Your task to perform on an android device: toggle javascript in the chrome app Image 0: 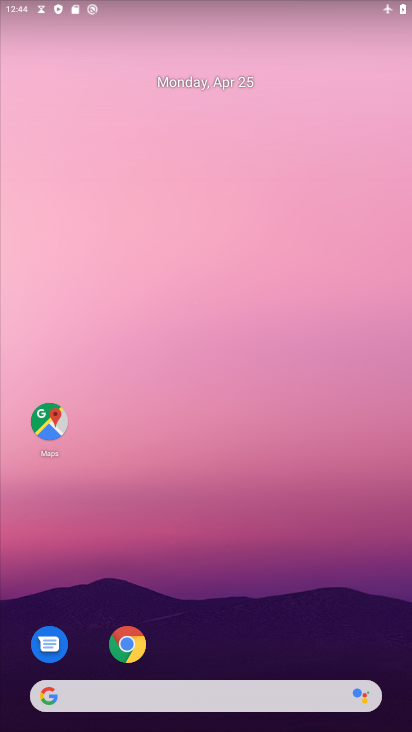
Step 0: click (130, 647)
Your task to perform on an android device: toggle javascript in the chrome app Image 1: 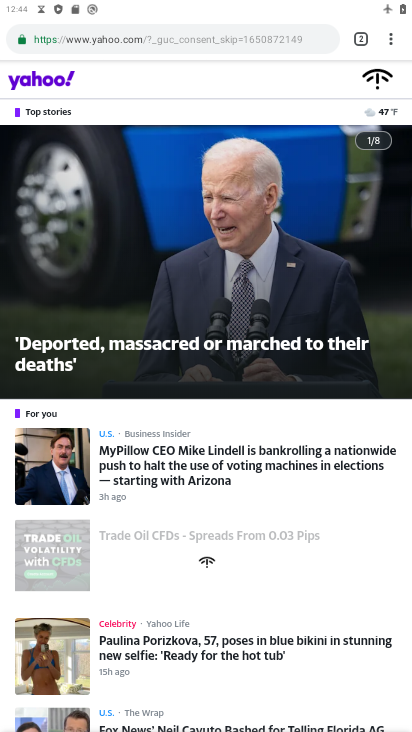
Step 1: drag from (390, 35) to (253, 483)
Your task to perform on an android device: toggle javascript in the chrome app Image 2: 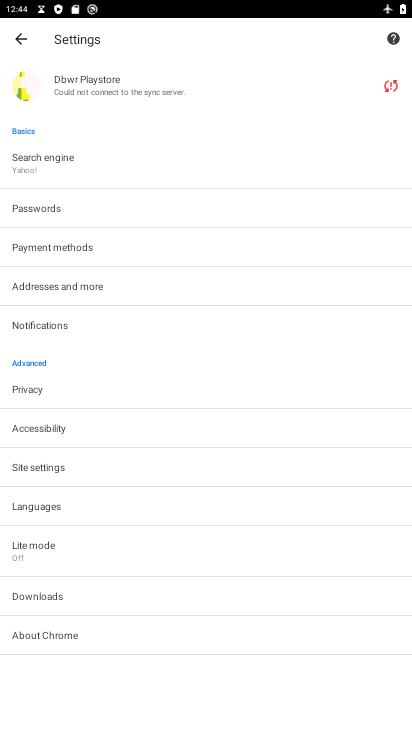
Step 2: click (47, 466)
Your task to perform on an android device: toggle javascript in the chrome app Image 3: 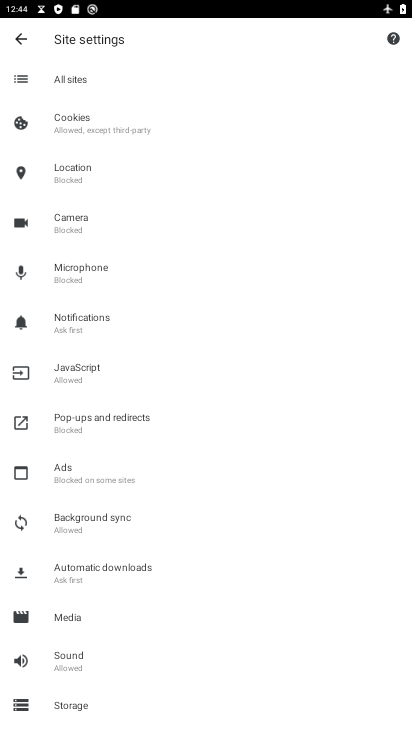
Step 3: click (79, 380)
Your task to perform on an android device: toggle javascript in the chrome app Image 4: 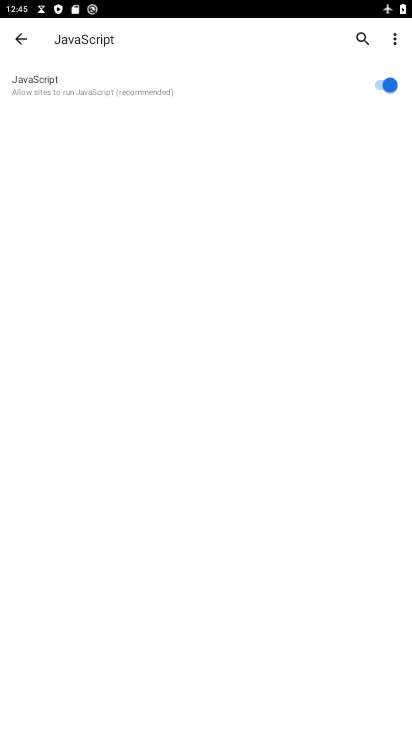
Step 4: click (389, 89)
Your task to perform on an android device: toggle javascript in the chrome app Image 5: 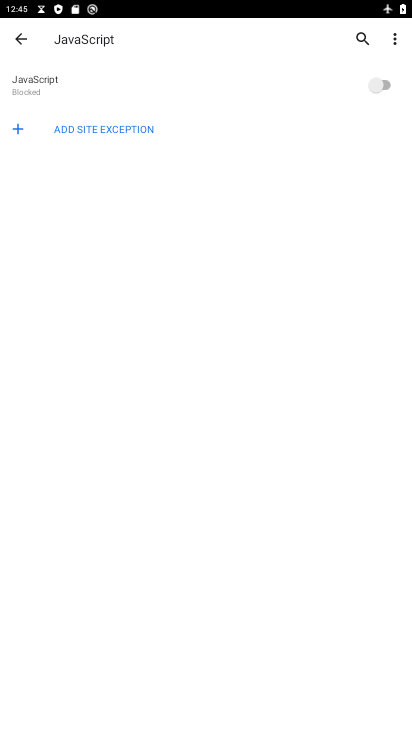
Step 5: task complete